Your task to perform on an android device: install app "Messenger Lite" Image 0: 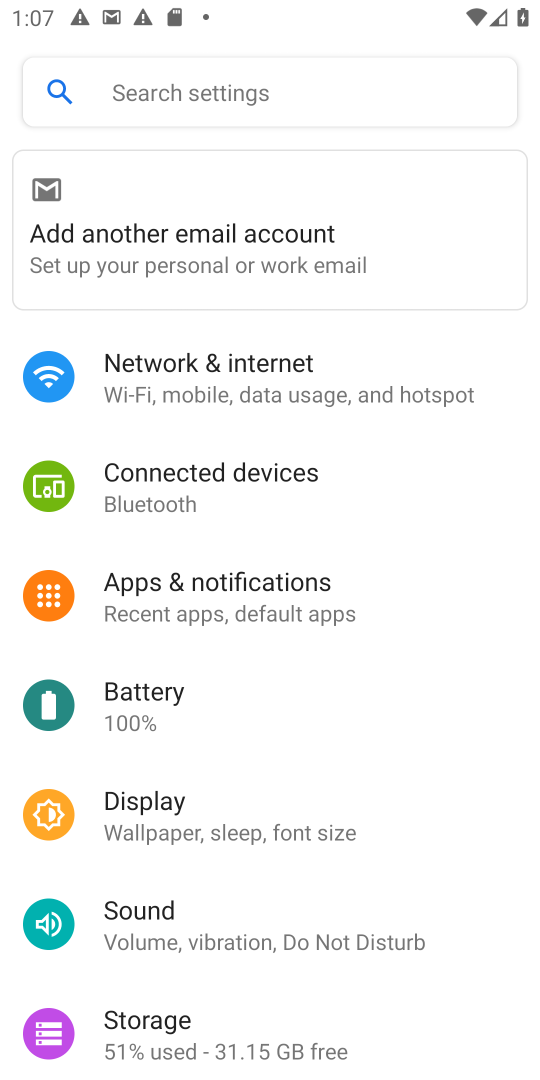
Step 0: press home button
Your task to perform on an android device: install app "Messenger Lite" Image 1: 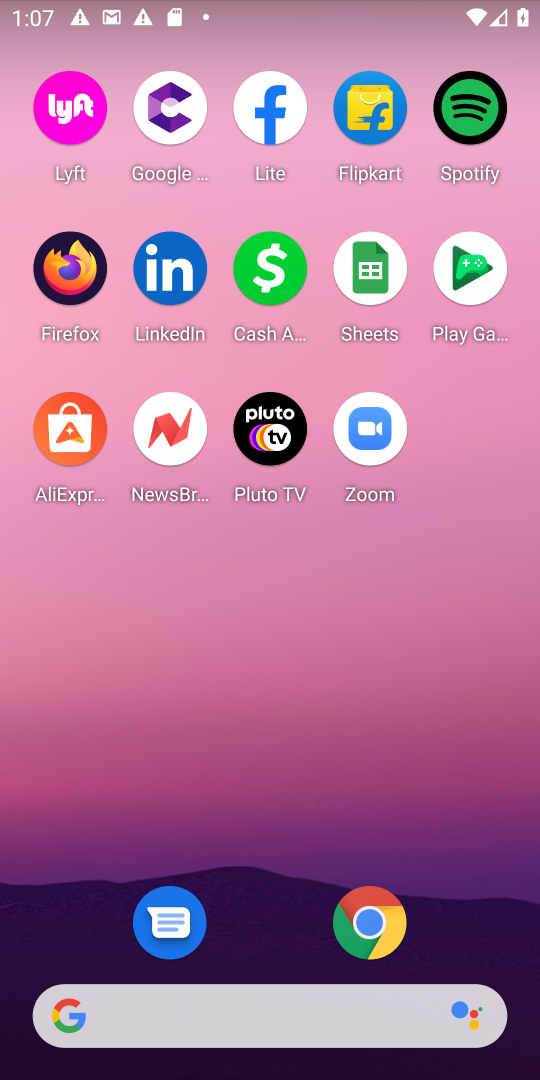
Step 1: drag from (256, 867) to (269, 93)
Your task to perform on an android device: install app "Messenger Lite" Image 2: 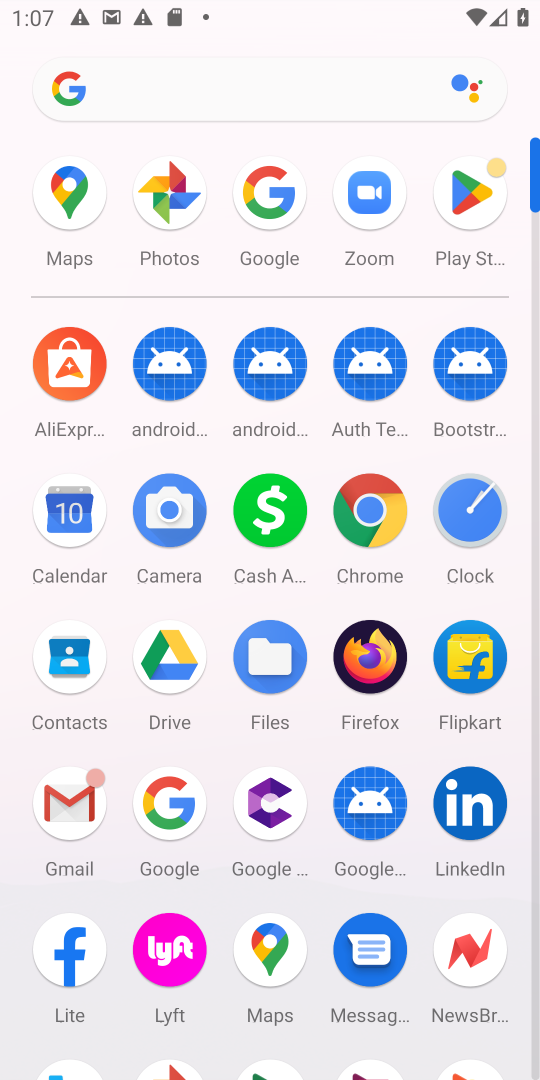
Step 2: click (468, 206)
Your task to perform on an android device: install app "Messenger Lite" Image 3: 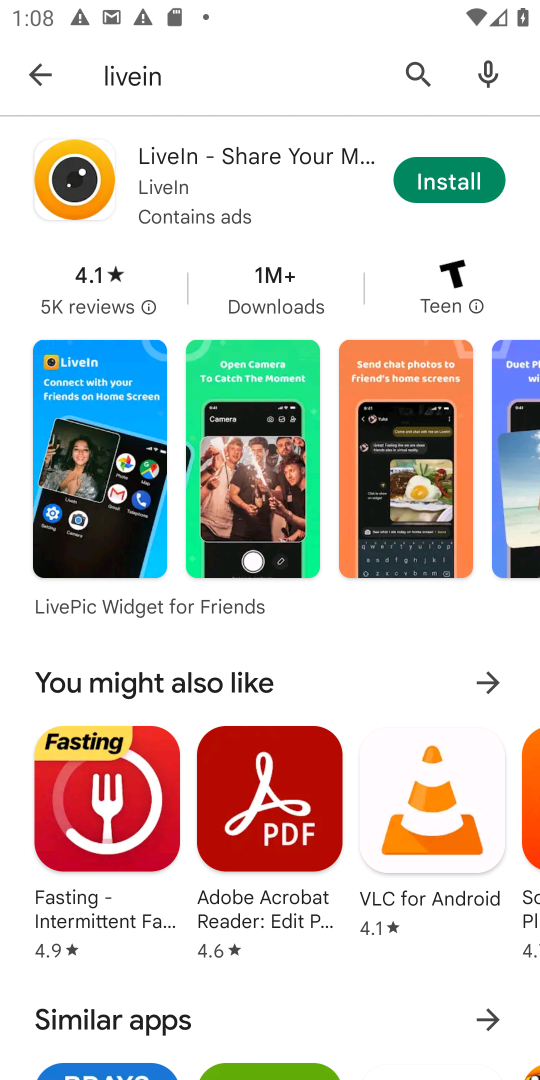
Step 3: click (34, 72)
Your task to perform on an android device: install app "Messenger Lite" Image 4: 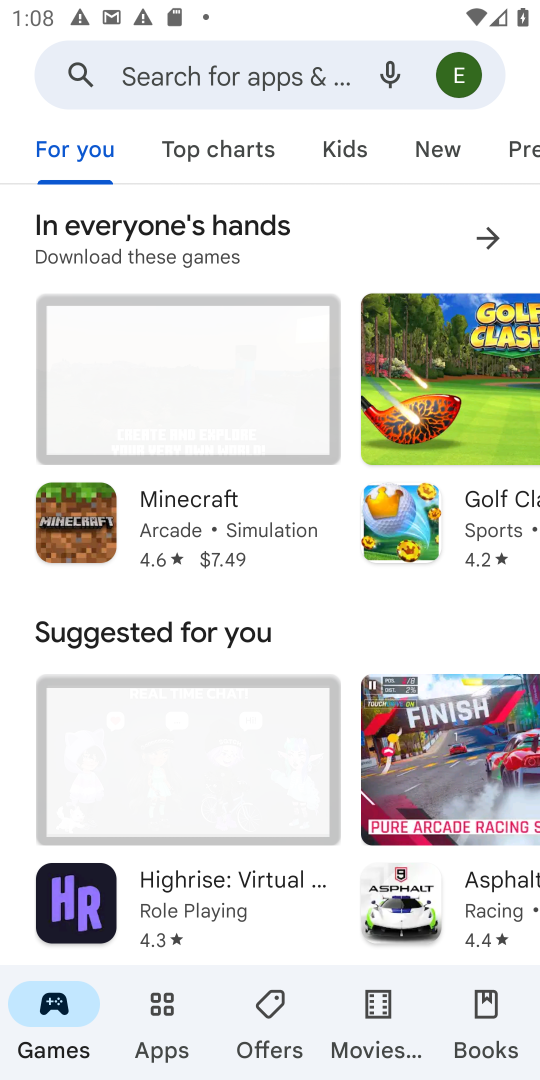
Step 4: click (172, 78)
Your task to perform on an android device: install app "Messenger Lite" Image 5: 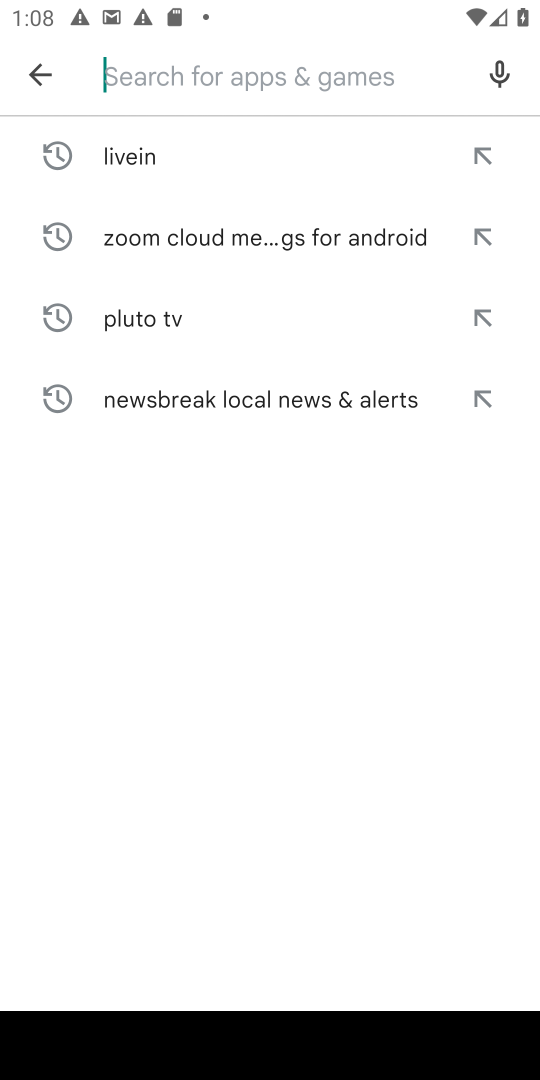
Step 5: type "Messenger Lite"
Your task to perform on an android device: install app "Messenger Lite" Image 6: 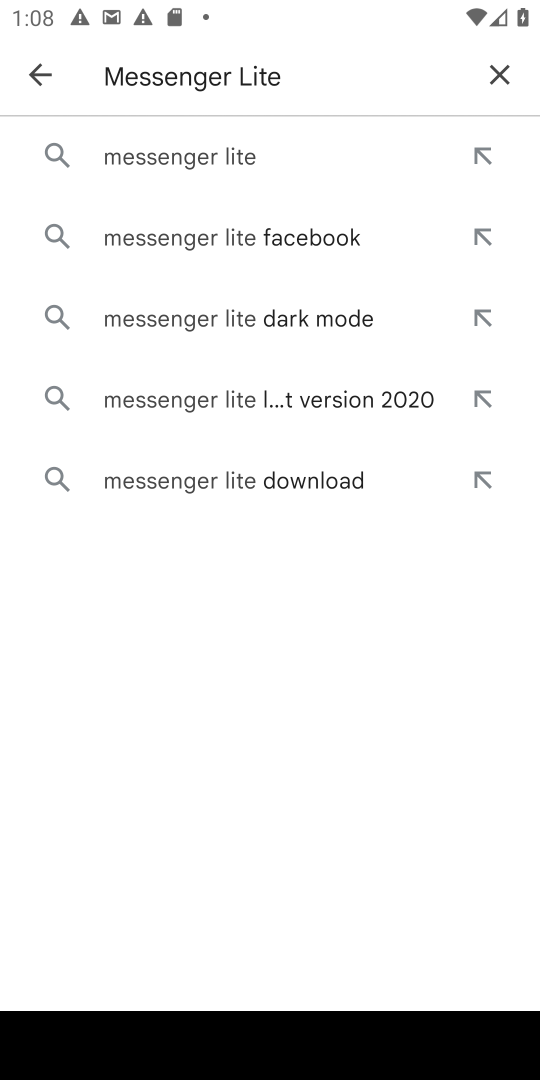
Step 6: click (219, 152)
Your task to perform on an android device: install app "Messenger Lite" Image 7: 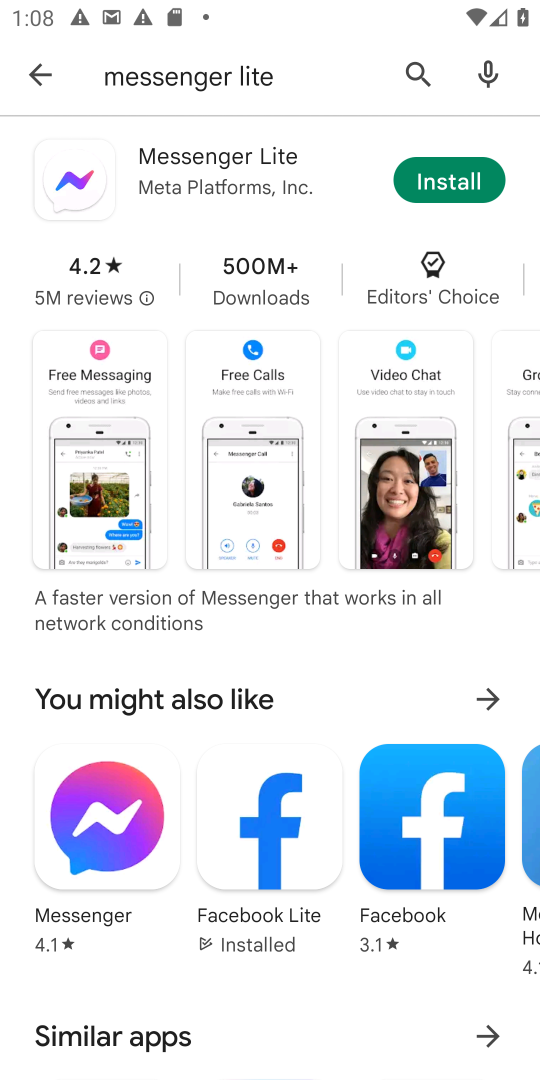
Step 7: click (428, 175)
Your task to perform on an android device: install app "Messenger Lite" Image 8: 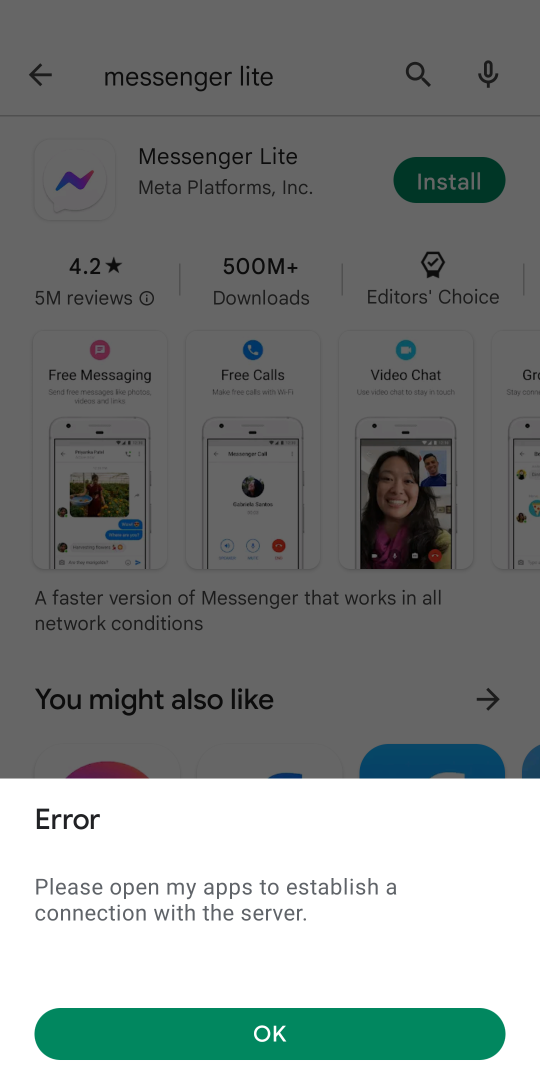
Step 8: click (271, 1039)
Your task to perform on an android device: install app "Messenger Lite" Image 9: 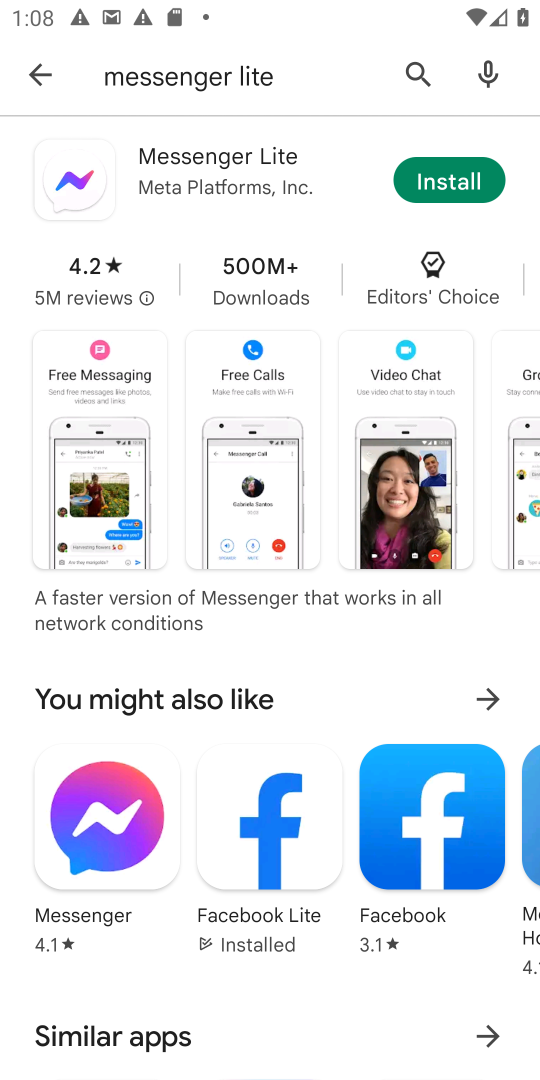
Step 9: task complete